Your task to perform on an android device: Go to battery settings Image 0: 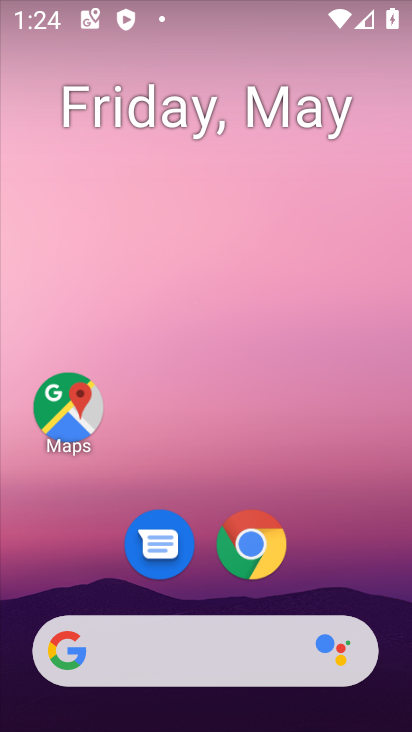
Step 0: drag from (199, 582) to (157, 290)
Your task to perform on an android device: Go to battery settings Image 1: 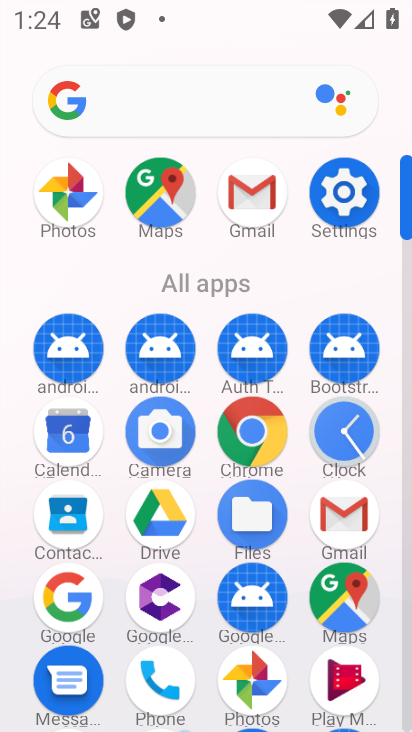
Step 1: click (343, 201)
Your task to perform on an android device: Go to battery settings Image 2: 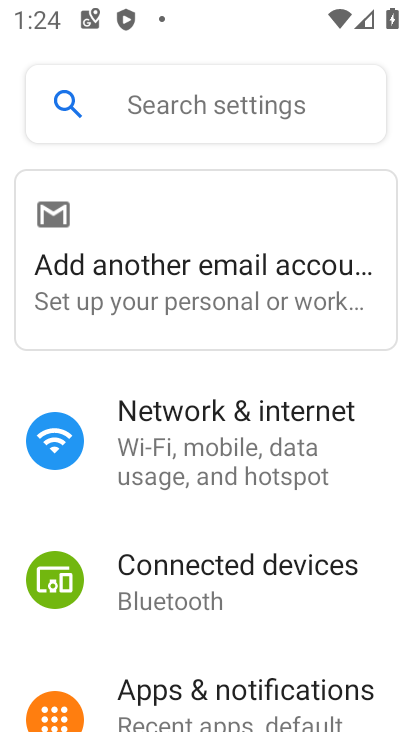
Step 2: drag from (245, 525) to (219, 268)
Your task to perform on an android device: Go to battery settings Image 3: 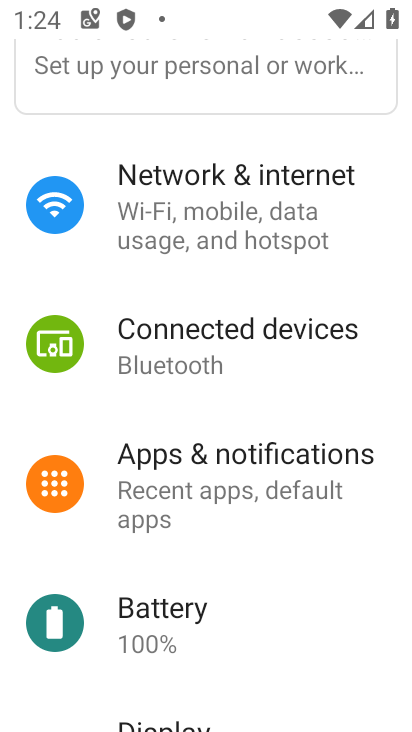
Step 3: click (210, 623)
Your task to perform on an android device: Go to battery settings Image 4: 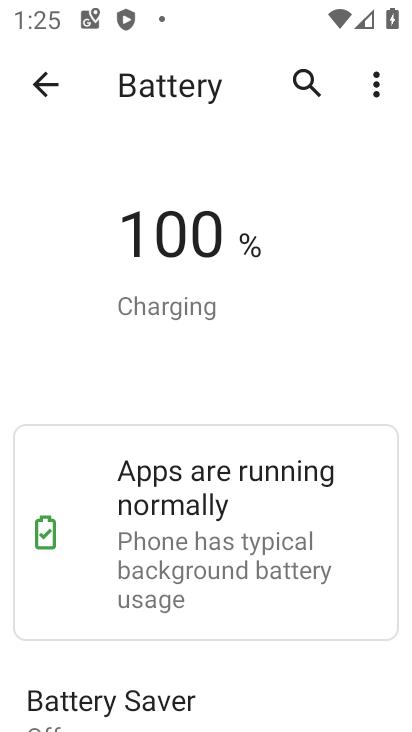
Step 4: task complete